Your task to perform on an android device: Open Google Maps Image 0: 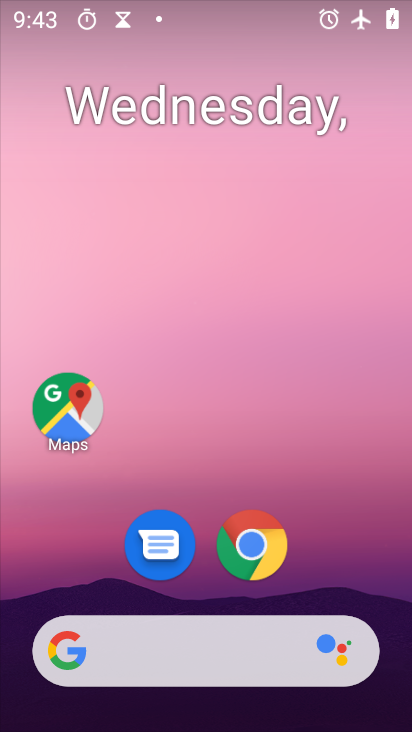
Step 0: press home button
Your task to perform on an android device: Open Google Maps Image 1: 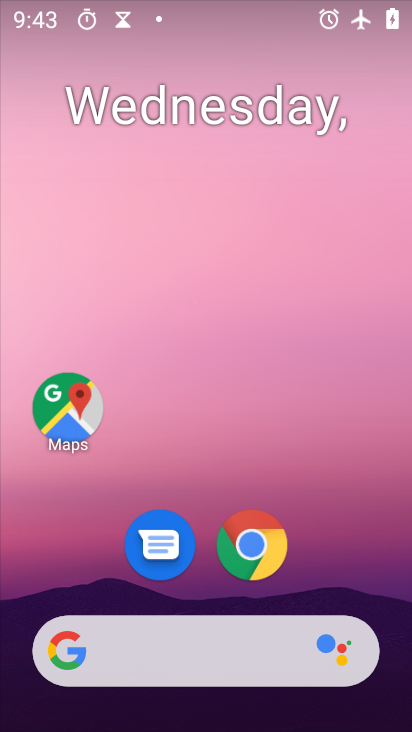
Step 1: click (74, 416)
Your task to perform on an android device: Open Google Maps Image 2: 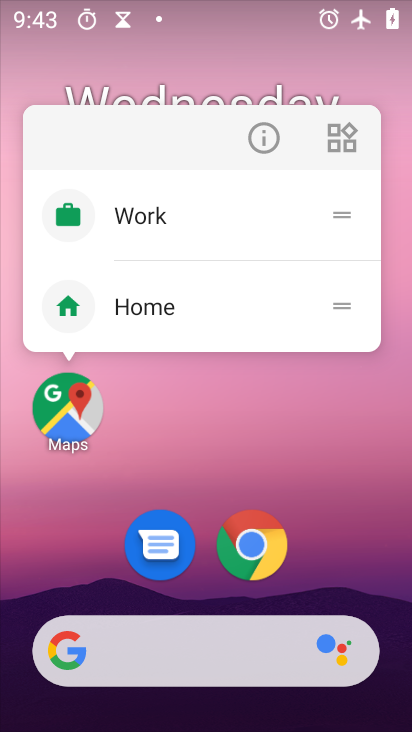
Step 2: click (61, 430)
Your task to perform on an android device: Open Google Maps Image 3: 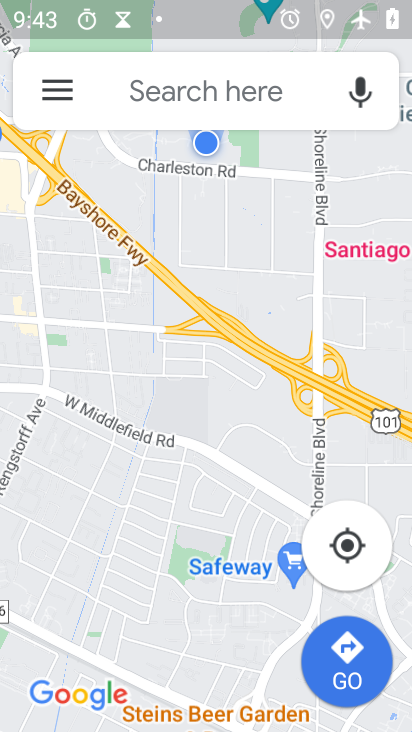
Step 3: task complete